Your task to perform on an android device: turn notification dots on Image 0: 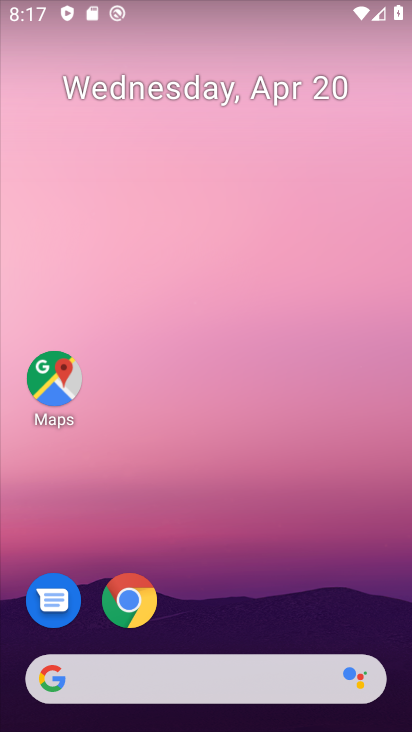
Step 0: drag from (159, 645) to (268, 40)
Your task to perform on an android device: turn notification dots on Image 1: 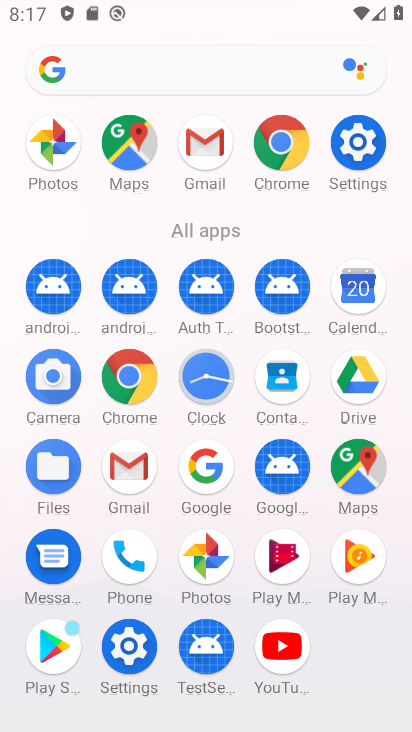
Step 1: click (149, 648)
Your task to perform on an android device: turn notification dots on Image 2: 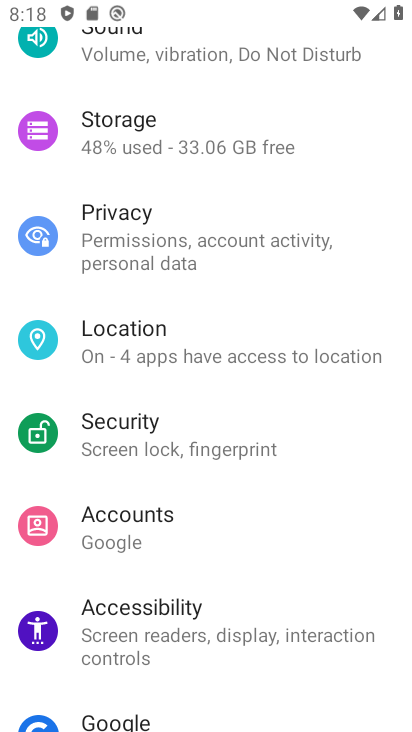
Step 2: drag from (215, 146) to (153, 571)
Your task to perform on an android device: turn notification dots on Image 3: 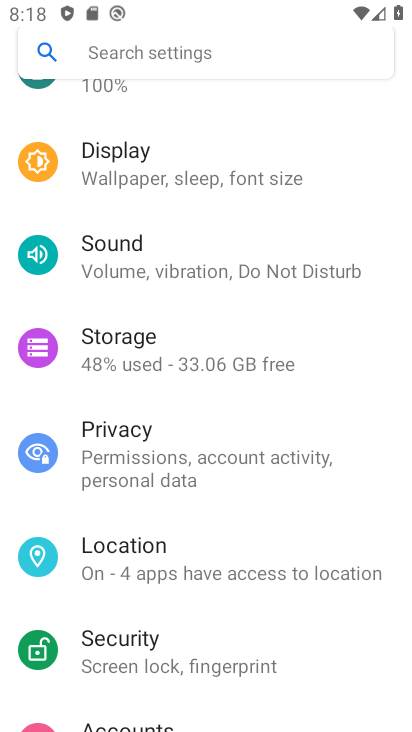
Step 3: drag from (202, 235) to (161, 468)
Your task to perform on an android device: turn notification dots on Image 4: 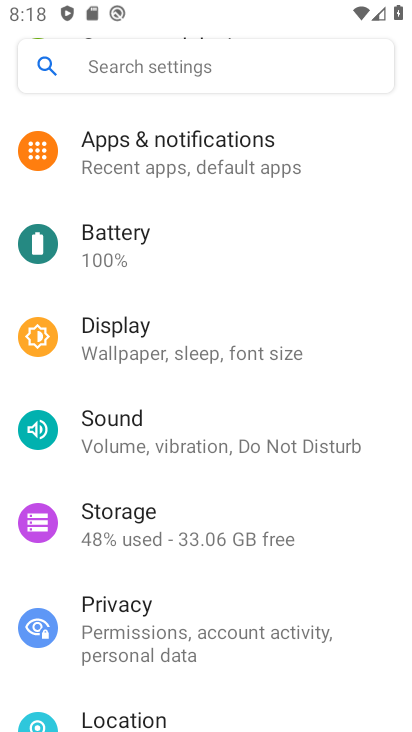
Step 4: click (195, 171)
Your task to perform on an android device: turn notification dots on Image 5: 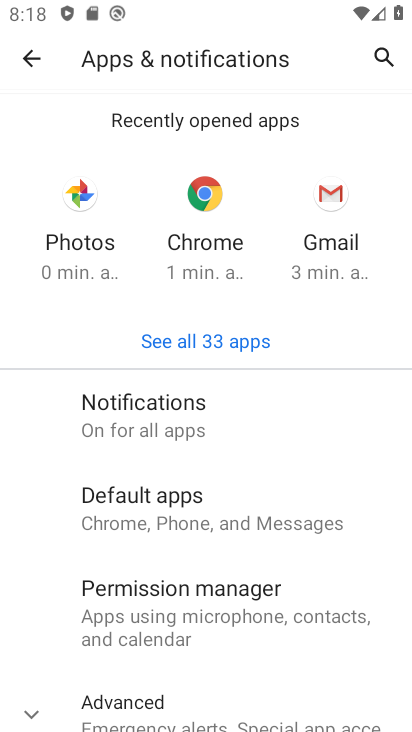
Step 5: click (252, 433)
Your task to perform on an android device: turn notification dots on Image 6: 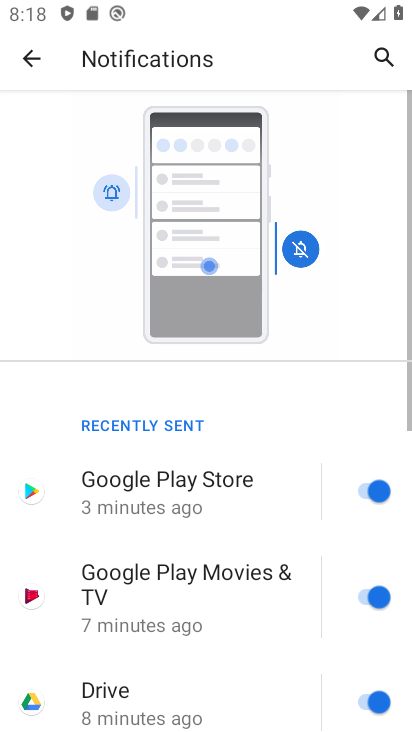
Step 6: drag from (223, 601) to (286, 177)
Your task to perform on an android device: turn notification dots on Image 7: 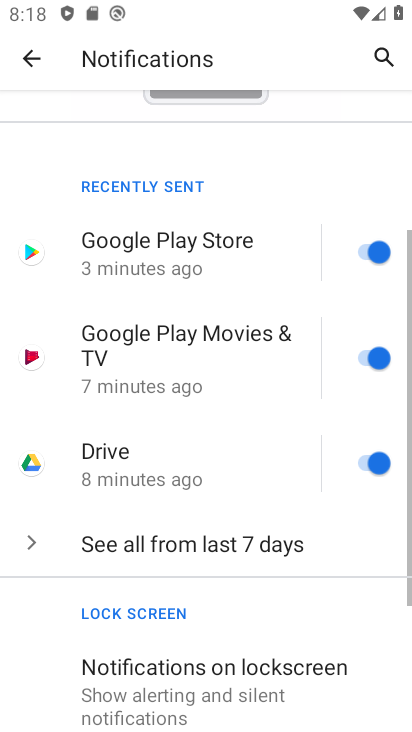
Step 7: drag from (228, 628) to (316, 186)
Your task to perform on an android device: turn notification dots on Image 8: 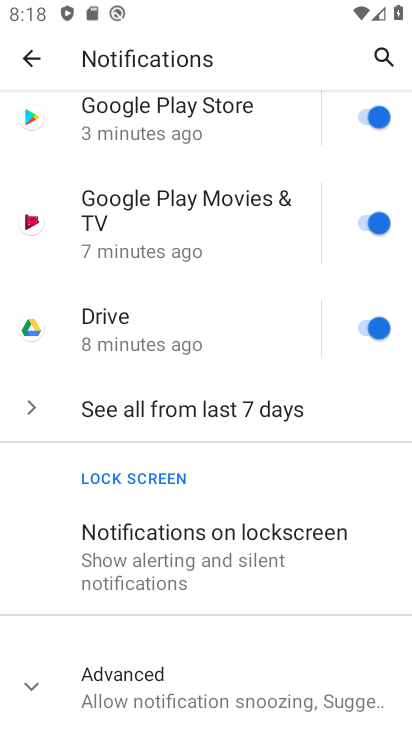
Step 8: click (197, 696)
Your task to perform on an android device: turn notification dots on Image 9: 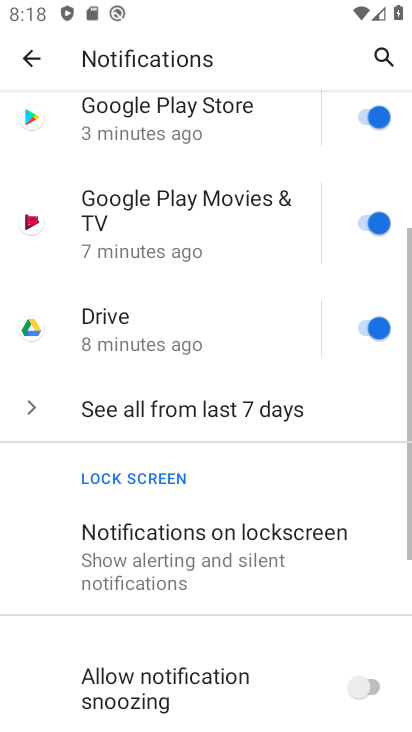
Step 9: task complete